Your task to perform on an android device: Open the map Image 0: 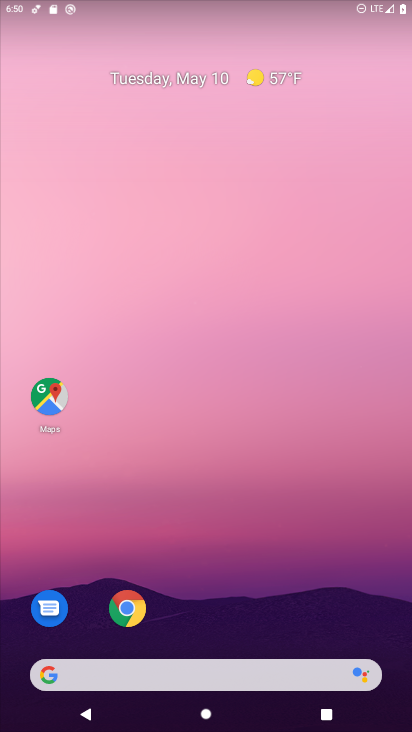
Step 0: drag from (290, 609) to (264, 33)
Your task to perform on an android device: Open the map Image 1: 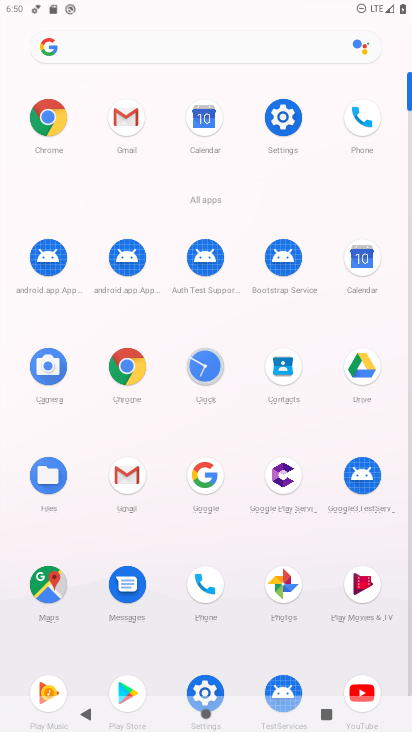
Step 1: click (54, 592)
Your task to perform on an android device: Open the map Image 2: 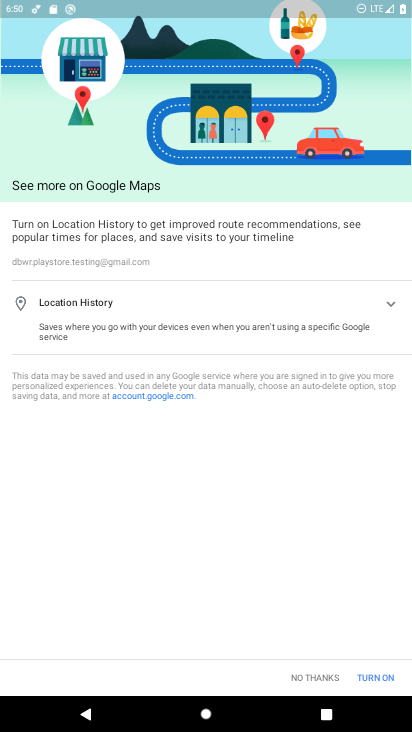
Step 2: click (307, 672)
Your task to perform on an android device: Open the map Image 3: 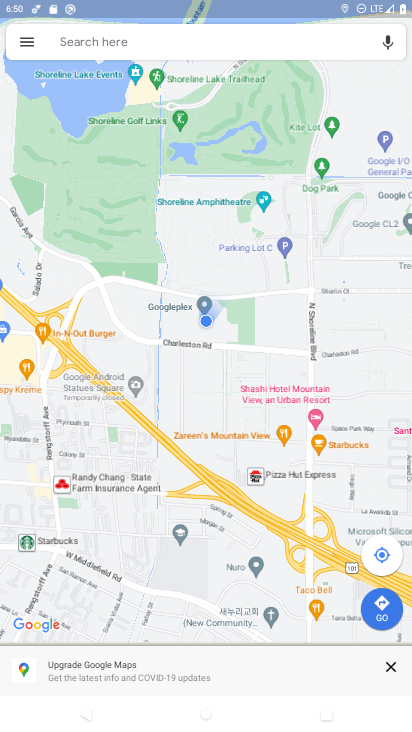
Step 3: task complete